Your task to perform on an android device: Show me the alarms in the clock app Image 0: 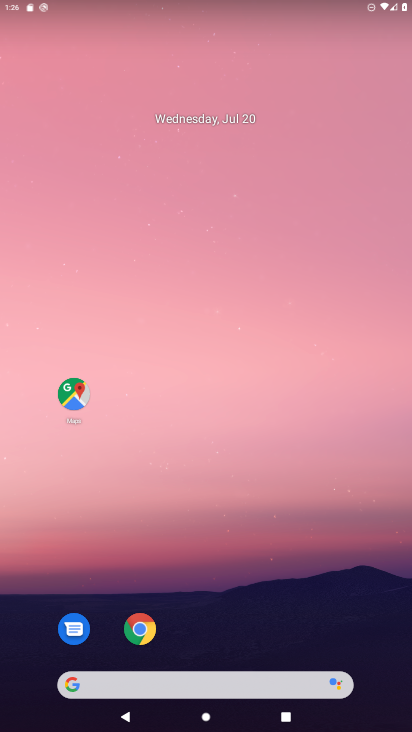
Step 0: drag from (190, 281) to (202, 112)
Your task to perform on an android device: Show me the alarms in the clock app Image 1: 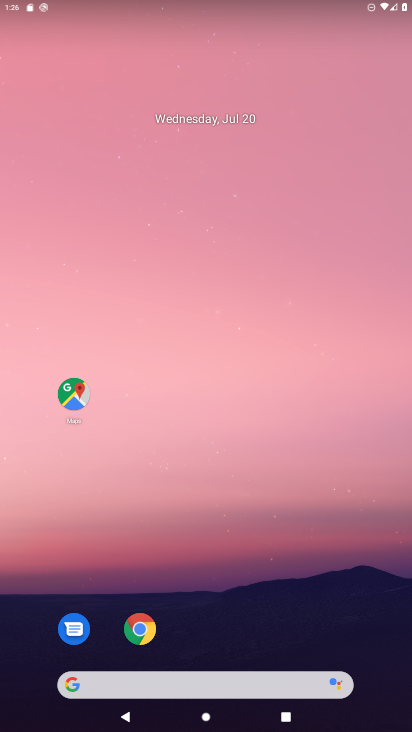
Step 1: drag from (213, 624) to (225, 242)
Your task to perform on an android device: Show me the alarms in the clock app Image 2: 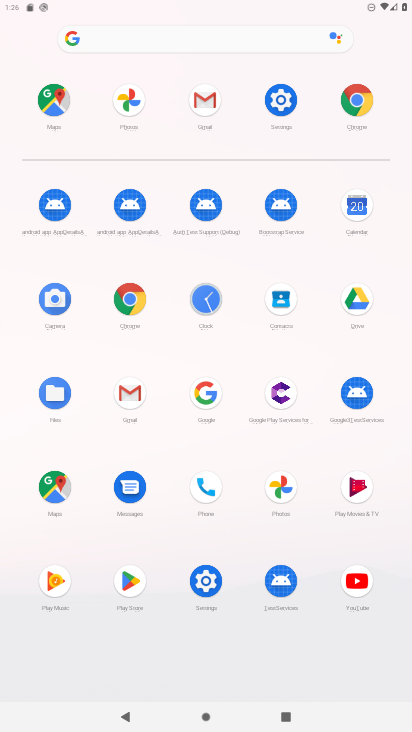
Step 2: click (209, 291)
Your task to perform on an android device: Show me the alarms in the clock app Image 3: 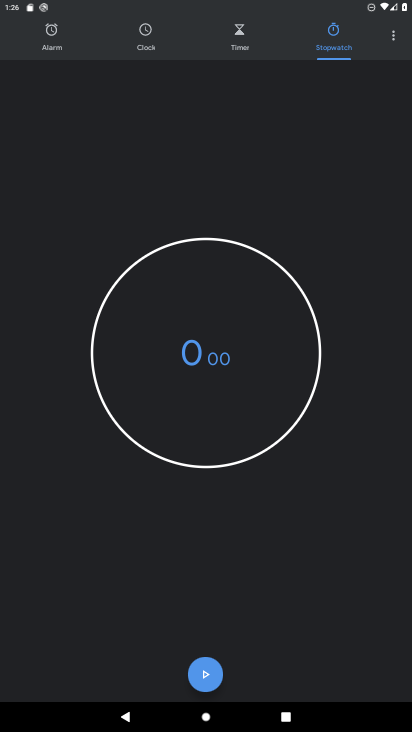
Step 3: click (397, 37)
Your task to perform on an android device: Show me the alarms in the clock app Image 4: 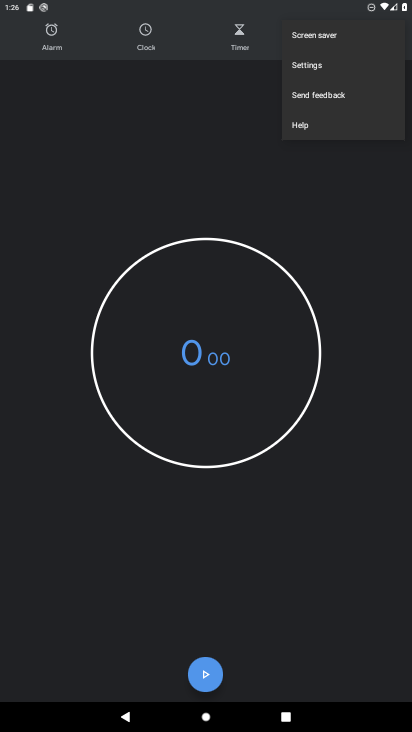
Step 4: click (54, 58)
Your task to perform on an android device: Show me the alarms in the clock app Image 5: 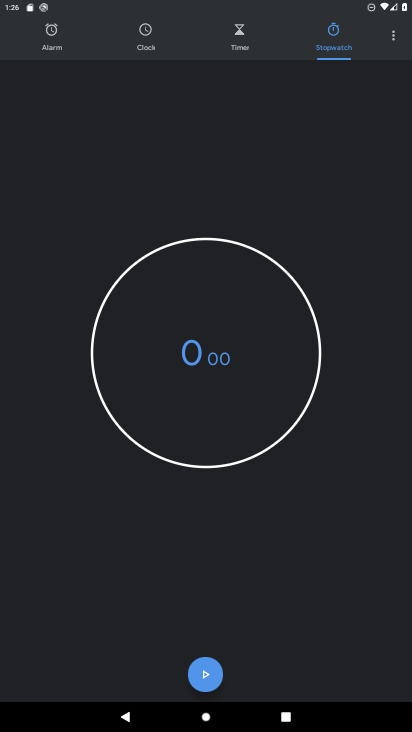
Step 5: click (54, 41)
Your task to perform on an android device: Show me the alarms in the clock app Image 6: 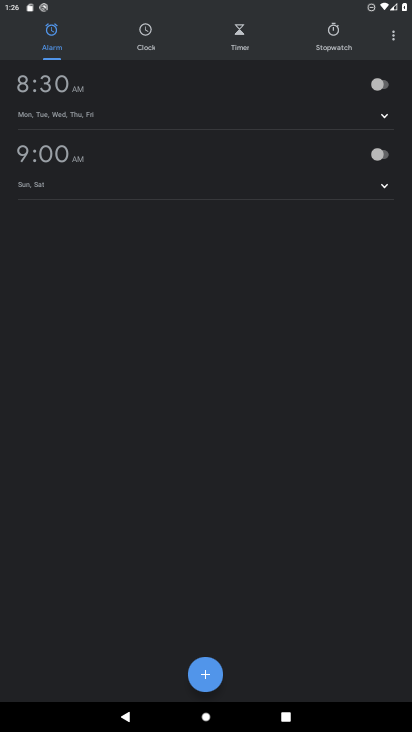
Step 6: task complete